Your task to perform on an android device: Open the calendar app, open the side menu, and click the "Day" option Image 0: 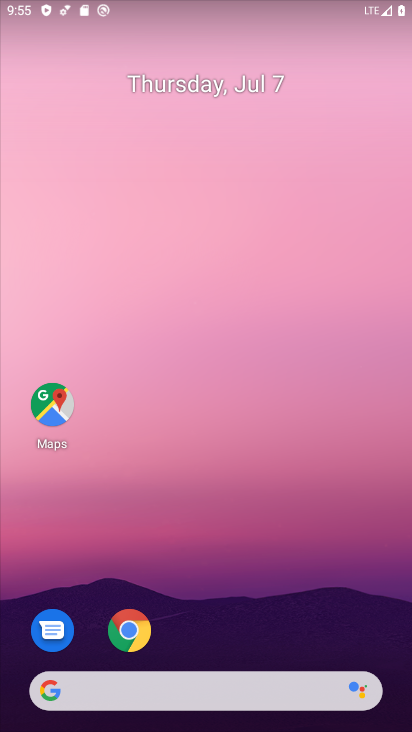
Step 0: press home button
Your task to perform on an android device: Open the calendar app, open the side menu, and click the "Day" option Image 1: 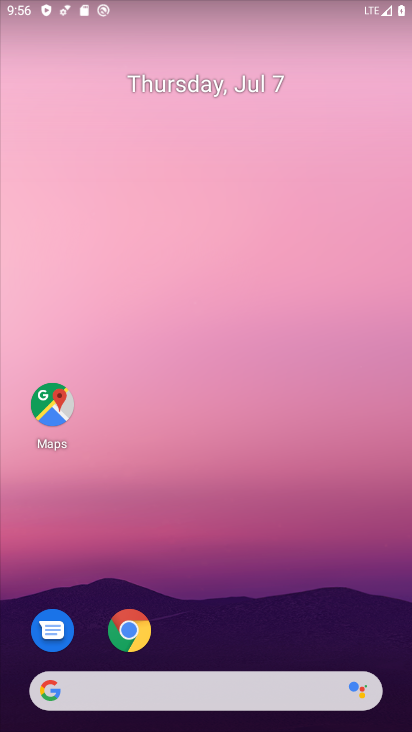
Step 1: drag from (236, 645) to (278, 42)
Your task to perform on an android device: Open the calendar app, open the side menu, and click the "Day" option Image 2: 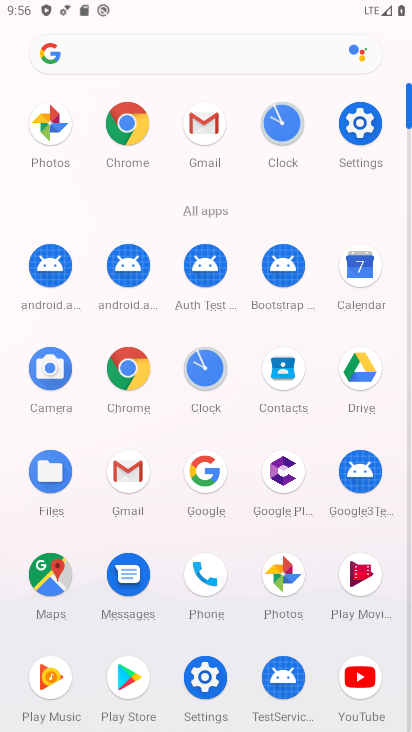
Step 2: click (361, 265)
Your task to perform on an android device: Open the calendar app, open the side menu, and click the "Day" option Image 3: 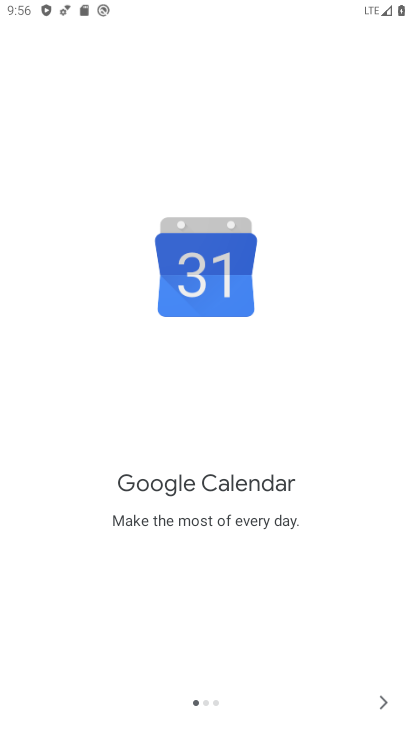
Step 3: click (376, 698)
Your task to perform on an android device: Open the calendar app, open the side menu, and click the "Day" option Image 4: 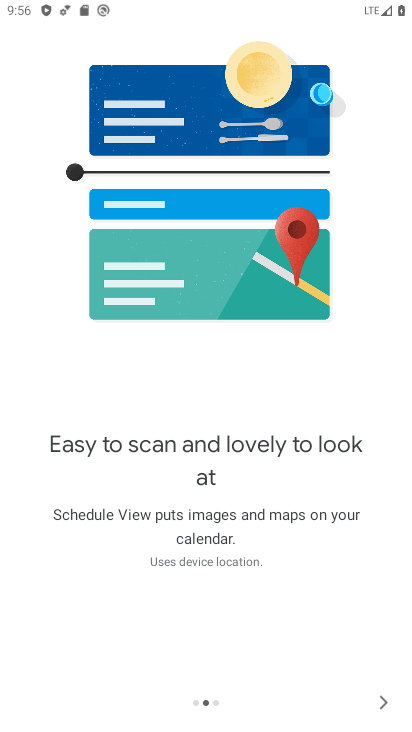
Step 4: click (384, 697)
Your task to perform on an android device: Open the calendar app, open the side menu, and click the "Day" option Image 5: 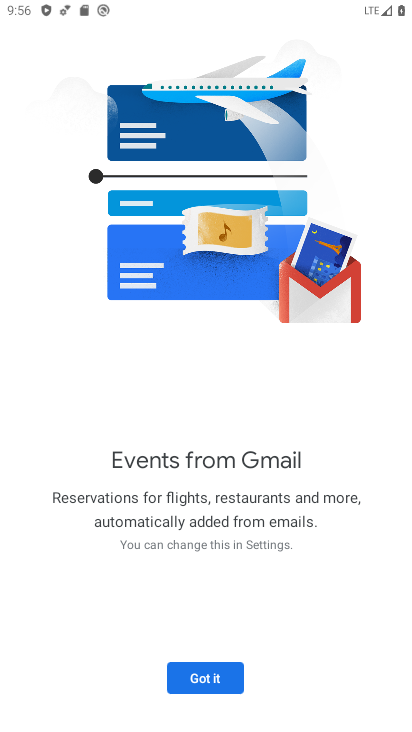
Step 5: click (211, 673)
Your task to perform on an android device: Open the calendar app, open the side menu, and click the "Day" option Image 6: 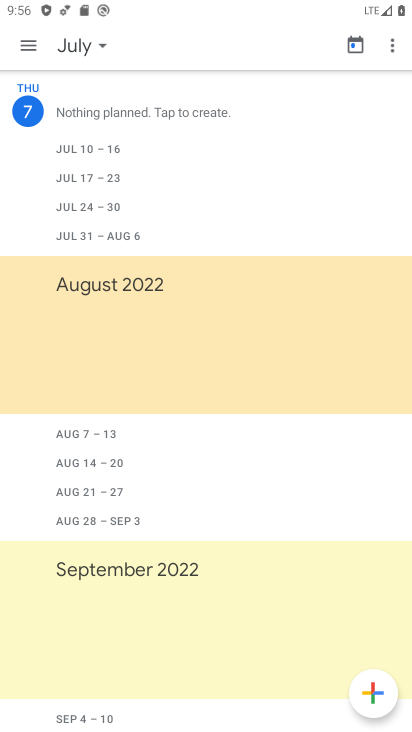
Step 6: click (24, 43)
Your task to perform on an android device: Open the calendar app, open the side menu, and click the "Day" option Image 7: 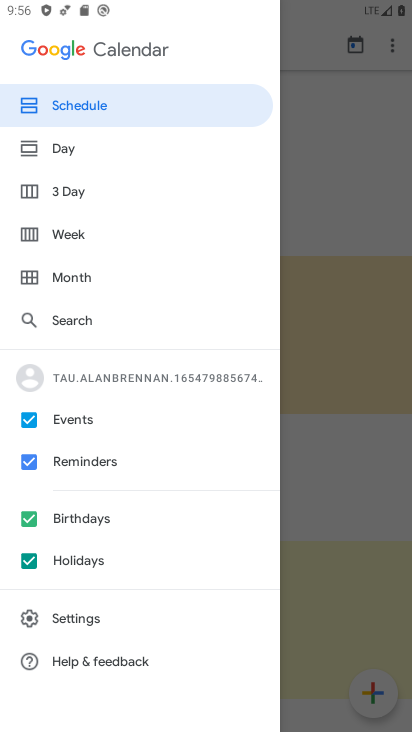
Step 7: click (79, 146)
Your task to perform on an android device: Open the calendar app, open the side menu, and click the "Day" option Image 8: 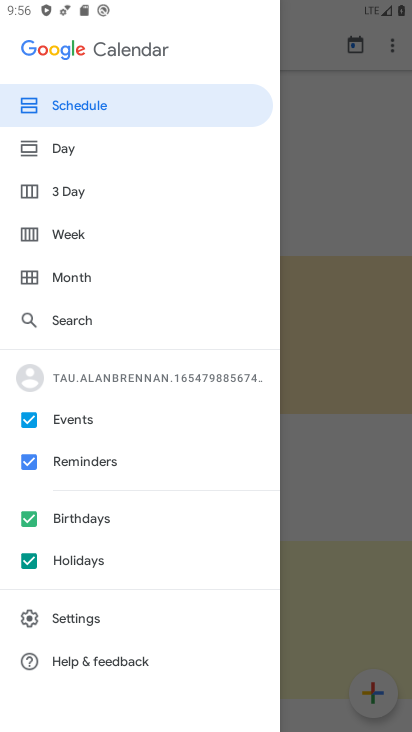
Step 8: click (58, 143)
Your task to perform on an android device: Open the calendar app, open the side menu, and click the "Day" option Image 9: 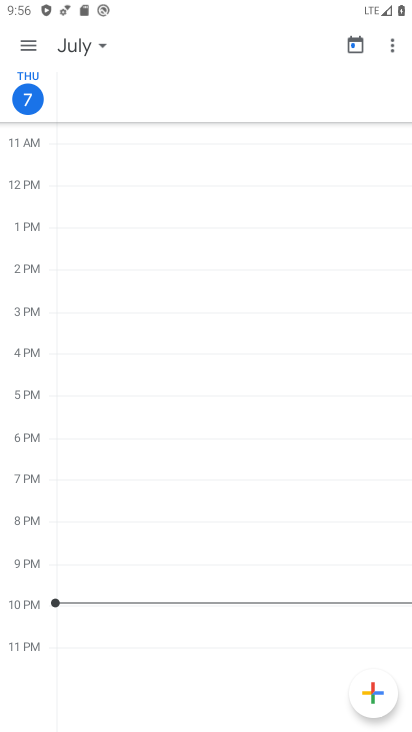
Step 9: task complete